Your task to perform on an android device: remove spam from my inbox in the gmail app Image 0: 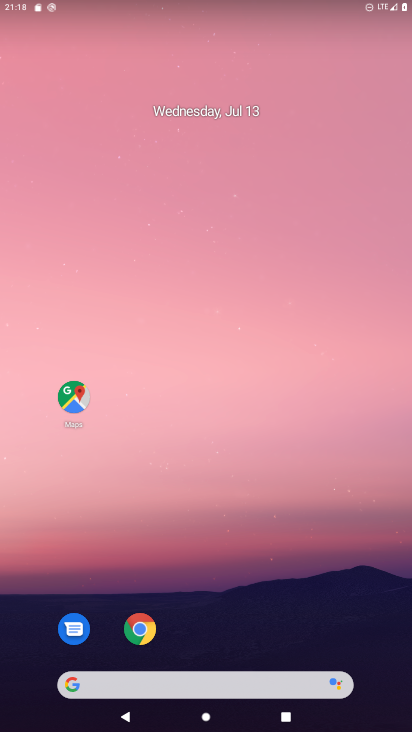
Step 0: drag from (301, 623) to (282, 123)
Your task to perform on an android device: remove spam from my inbox in the gmail app Image 1: 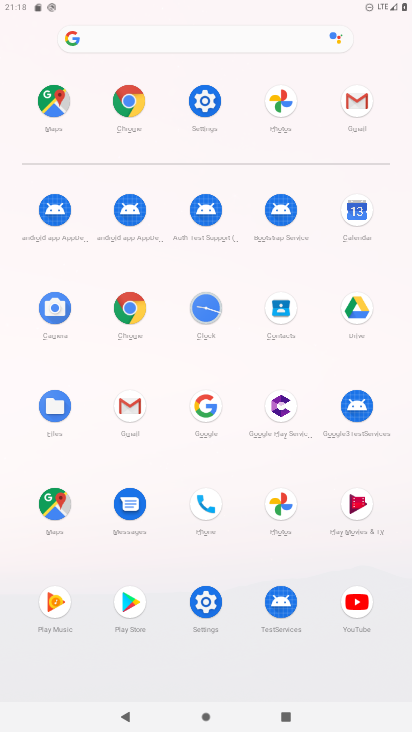
Step 1: click (135, 403)
Your task to perform on an android device: remove spam from my inbox in the gmail app Image 2: 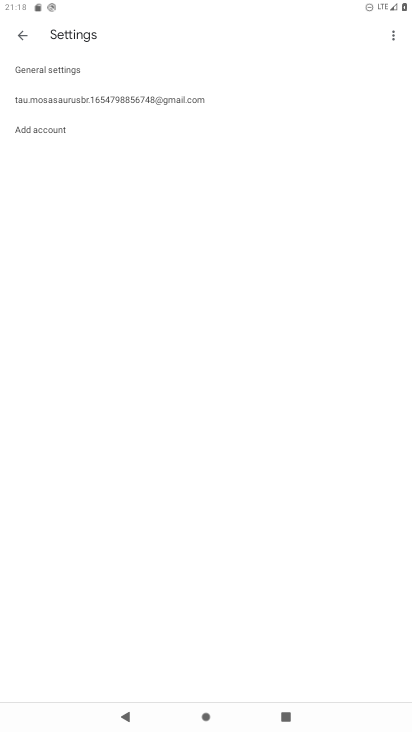
Step 2: click (14, 35)
Your task to perform on an android device: remove spam from my inbox in the gmail app Image 3: 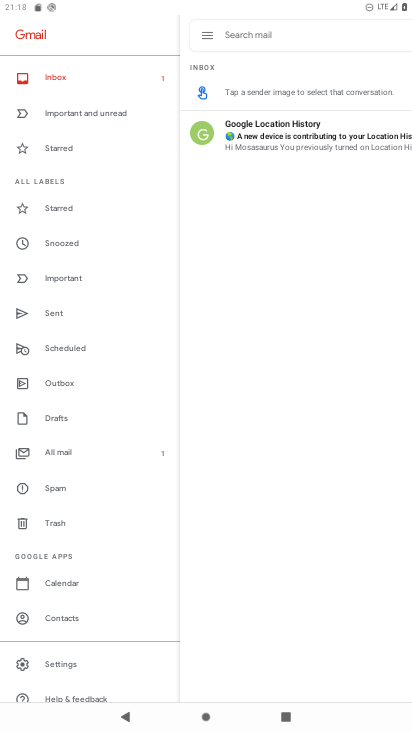
Step 3: click (41, 481)
Your task to perform on an android device: remove spam from my inbox in the gmail app Image 4: 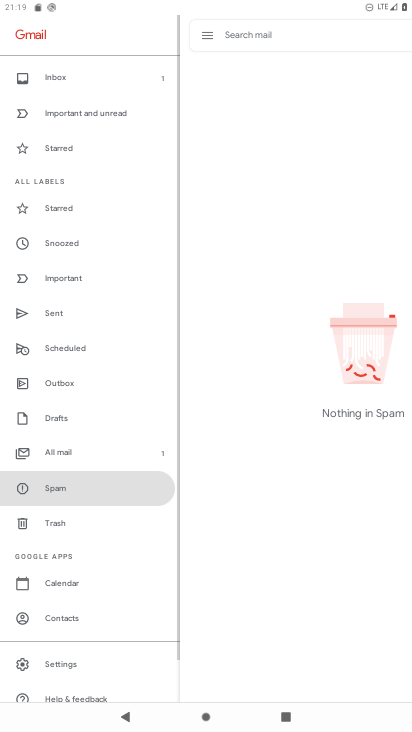
Step 4: task complete